Your task to perform on an android device: Open Google Chrome and open the bookmarks view Image 0: 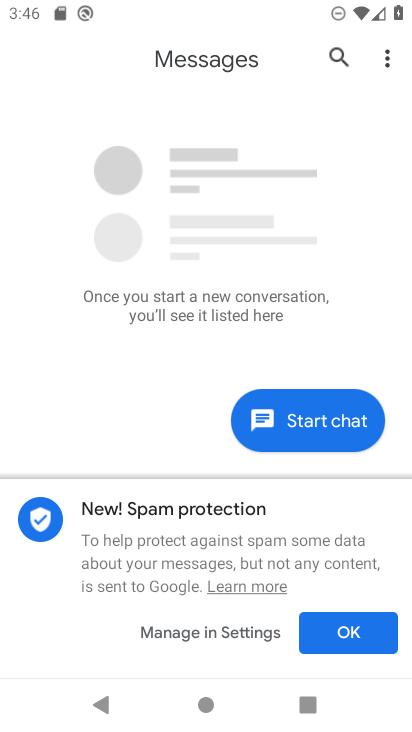
Step 0: press home button
Your task to perform on an android device: Open Google Chrome and open the bookmarks view Image 1: 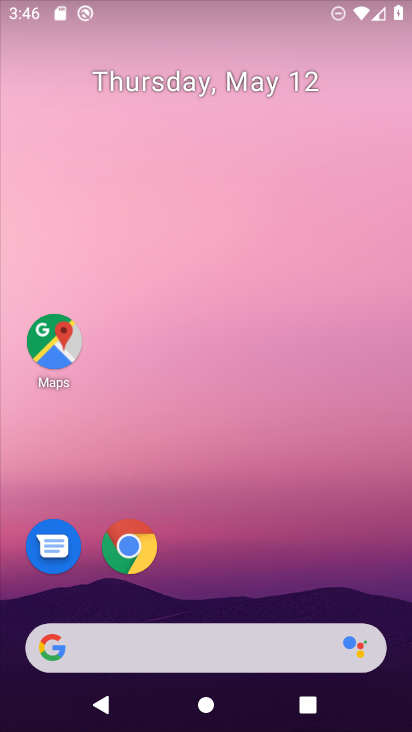
Step 1: drag from (249, 574) to (284, 234)
Your task to perform on an android device: Open Google Chrome and open the bookmarks view Image 2: 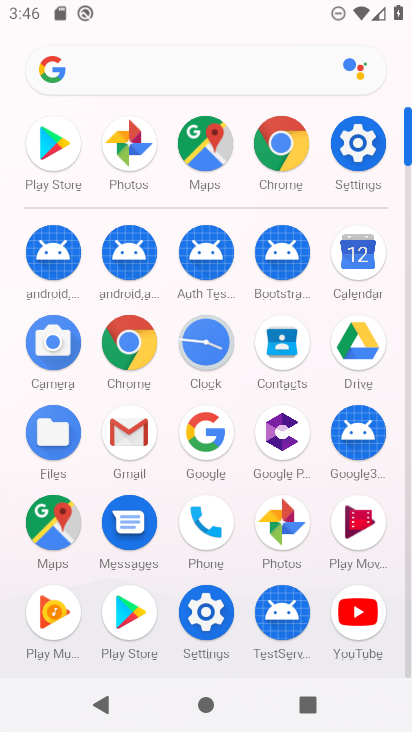
Step 2: click (273, 154)
Your task to perform on an android device: Open Google Chrome and open the bookmarks view Image 3: 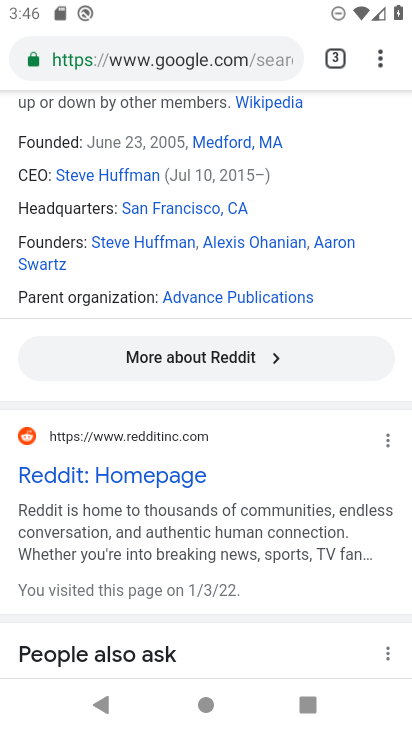
Step 3: click (366, 45)
Your task to perform on an android device: Open Google Chrome and open the bookmarks view Image 4: 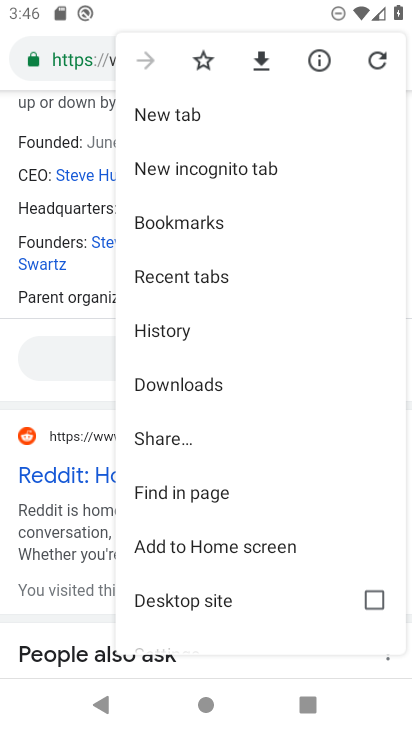
Step 4: click (193, 218)
Your task to perform on an android device: Open Google Chrome and open the bookmarks view Image 5: 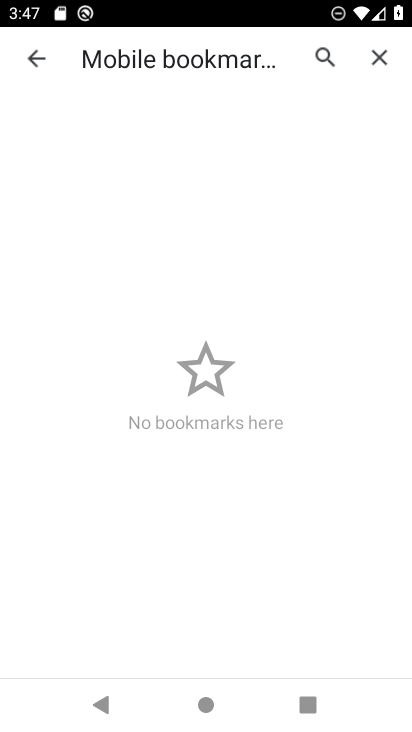
Step 5: task complete